Your task to perform on an android device: move an email to a new category in the gmail app Image 0: 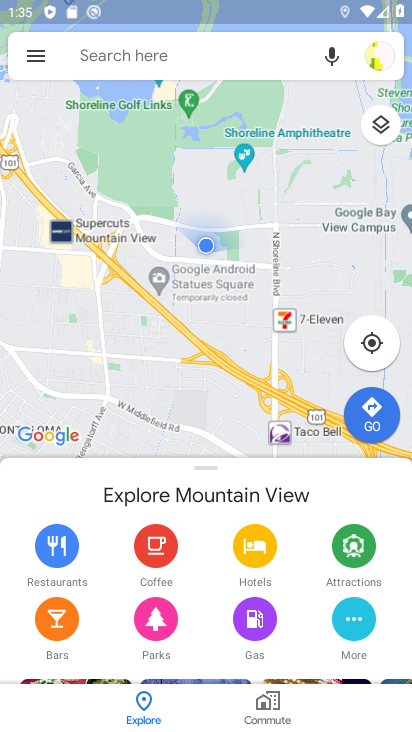
Step 0: press home button
Your task to perform on an android device: move an email to a new category in the gmail app Image 1: 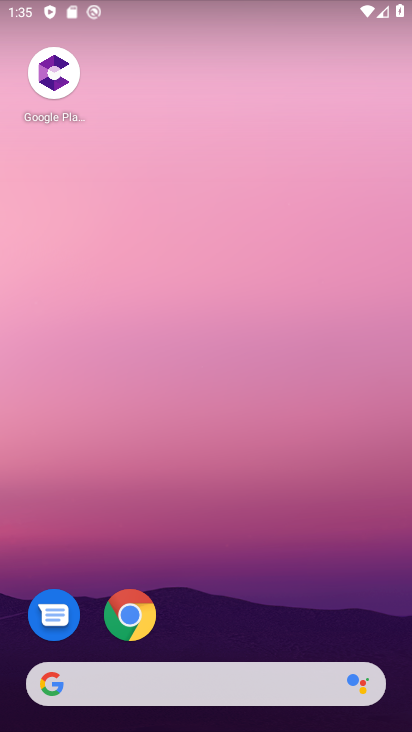
Step 1: drag from (215, 601) to (179, 94)
Your task to perform on an android device: move an email to a new category in the gmail app Image 2: 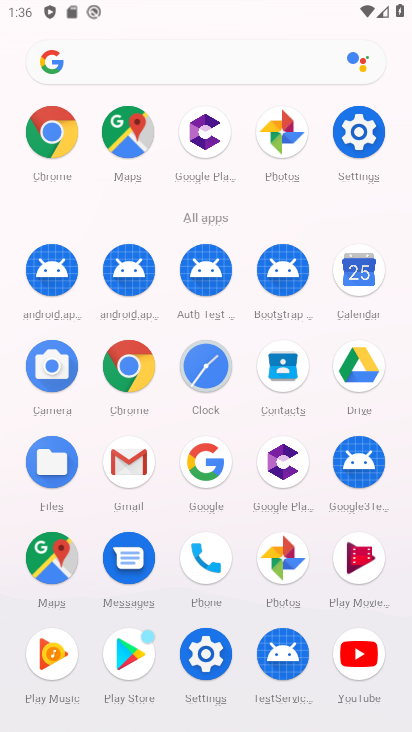
Step 2: click (133, 469)
Your task to perform on an android device: move an email to a new category in the gmail app Image 3: 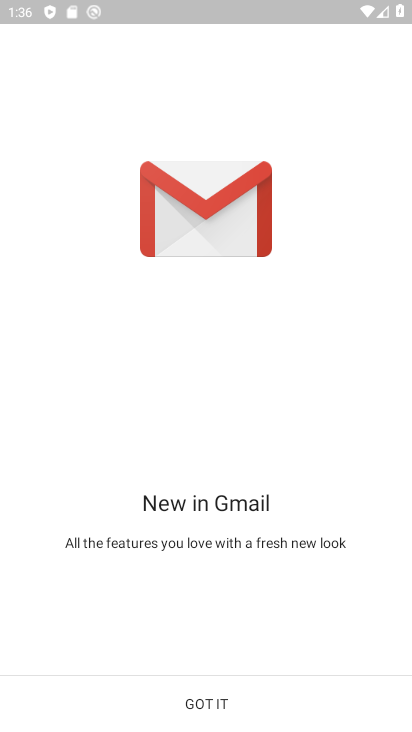
Step 3: click (210, 704)
Your task to perform on an android device: move an email to a new category in the gmail app Image 4: 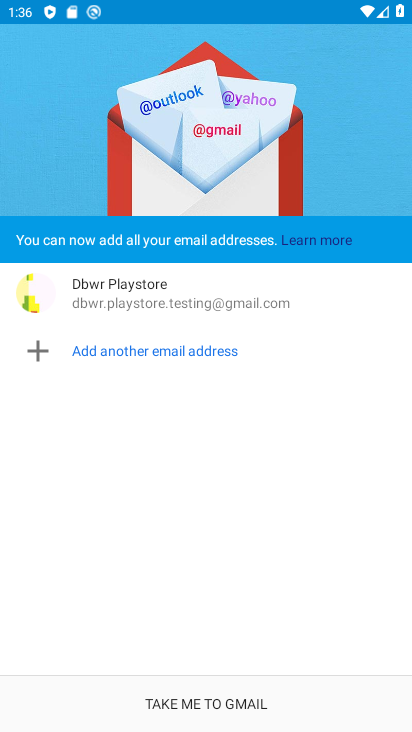
Step 4: click (210, 704)
Your task to perform on an android device: move an email to a new category in the gmail app Image 5: 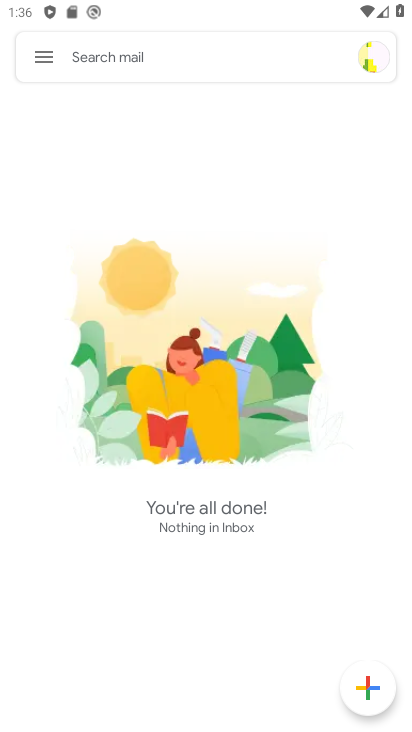
Step 5: task complete